Your task to perform on an android device: Search for bose soundlink mini on newegg.com, select the first entry, and add it to the cart. Image 0: 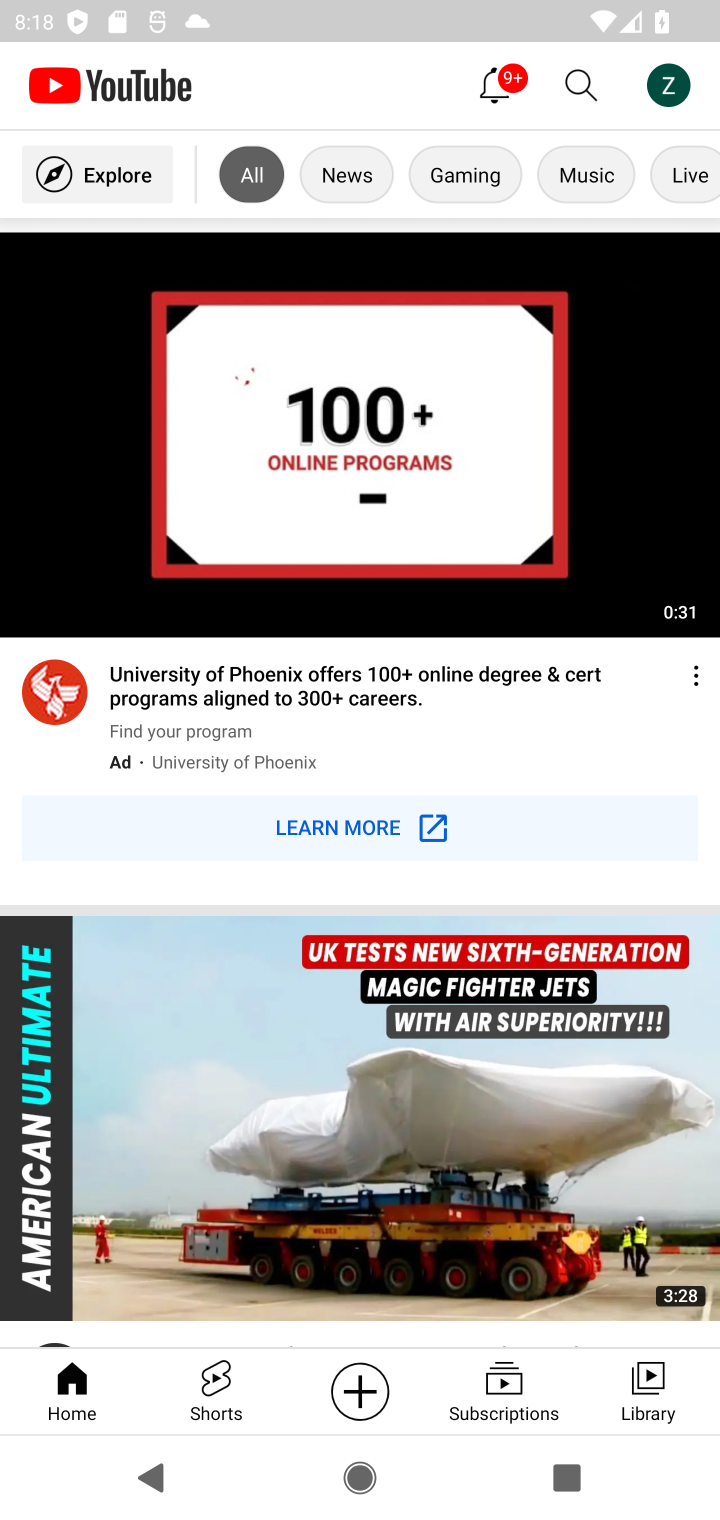
Step 0: press home button
Your task to perform on an android device: Search for bose soundlink mini on newegg.com, select the first entry, and add it to the cart. Image 1: 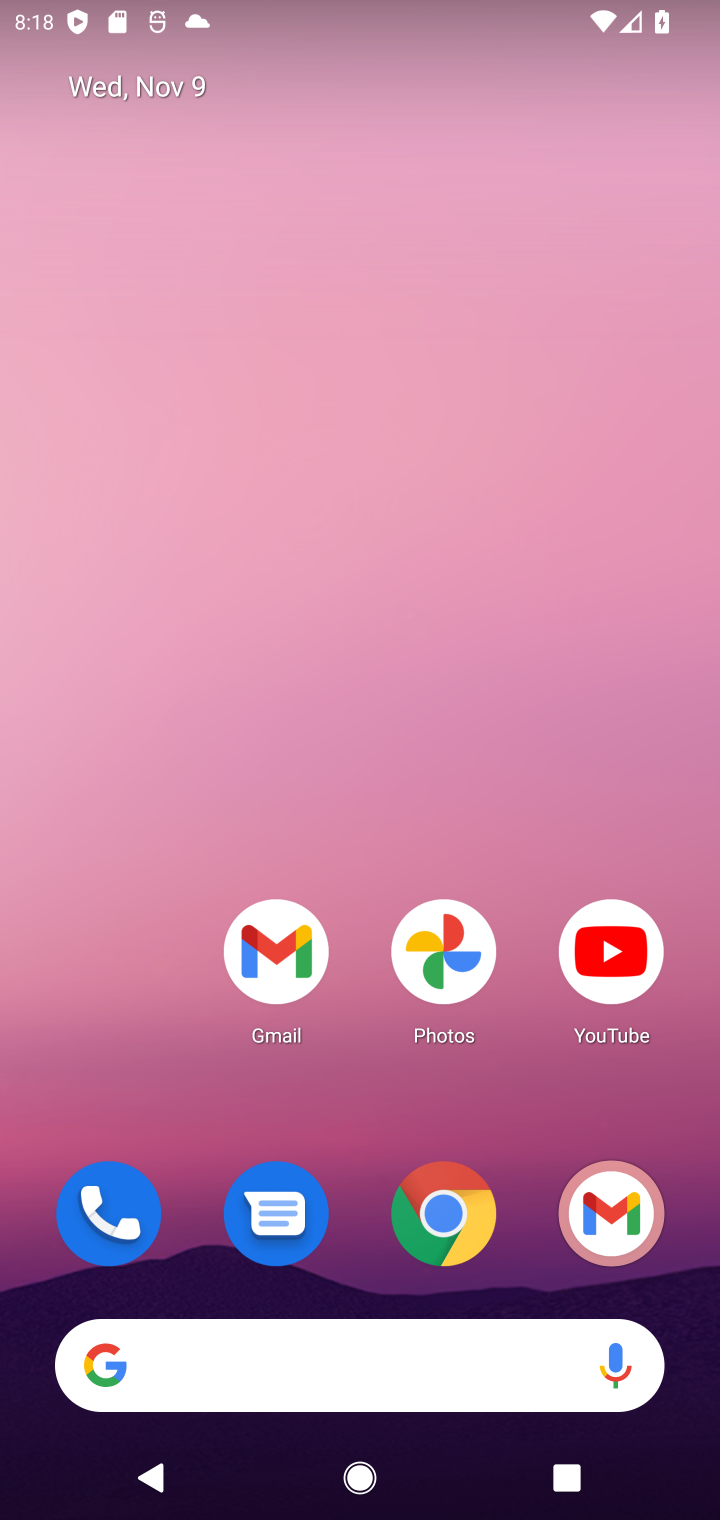
Step 1: click (429, 1213)
Your task to perform on an android device: Search for bose soundlink mini on newegg.com, select the first entry, and add it to the cart. Image 2: 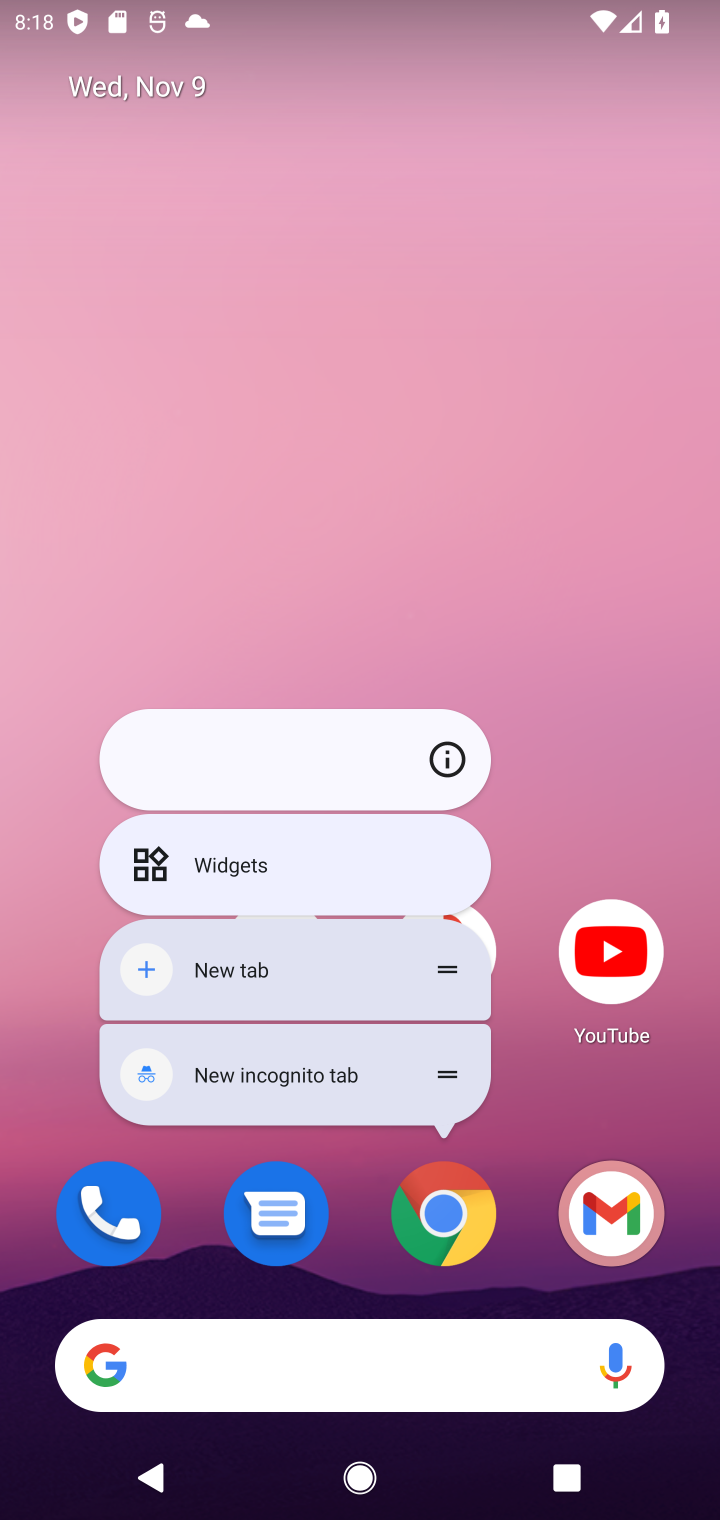
Step 2: click (415, 1215)
Your task to perform on an android device: Search for bose soundlink mini on newegg.com, select the first entry, and add it to the cart. Image 3: 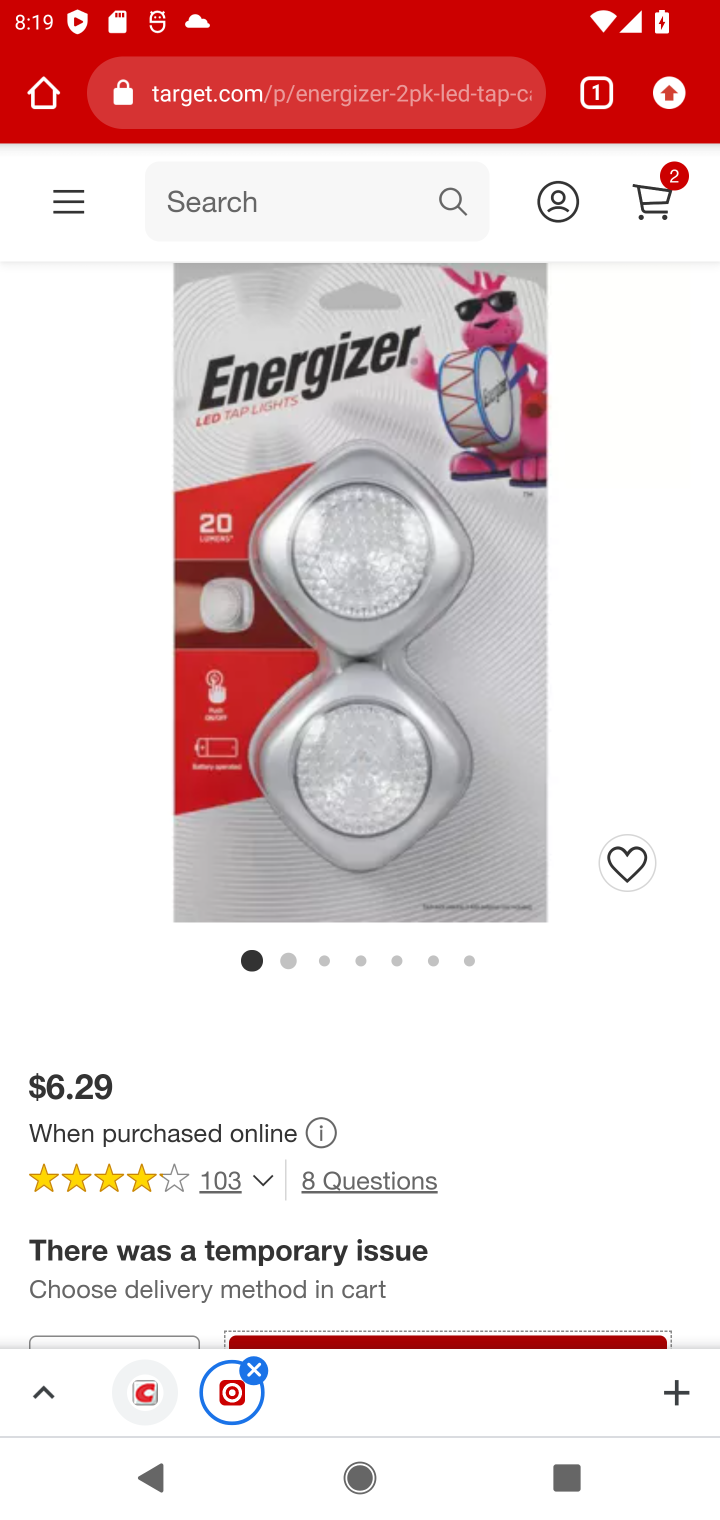
Step 3: click (251, 95)
Your task to perform on an android device: Search for bose soundlink mini on newegg.com, select the first entry, and add it to the cart. Image 4: 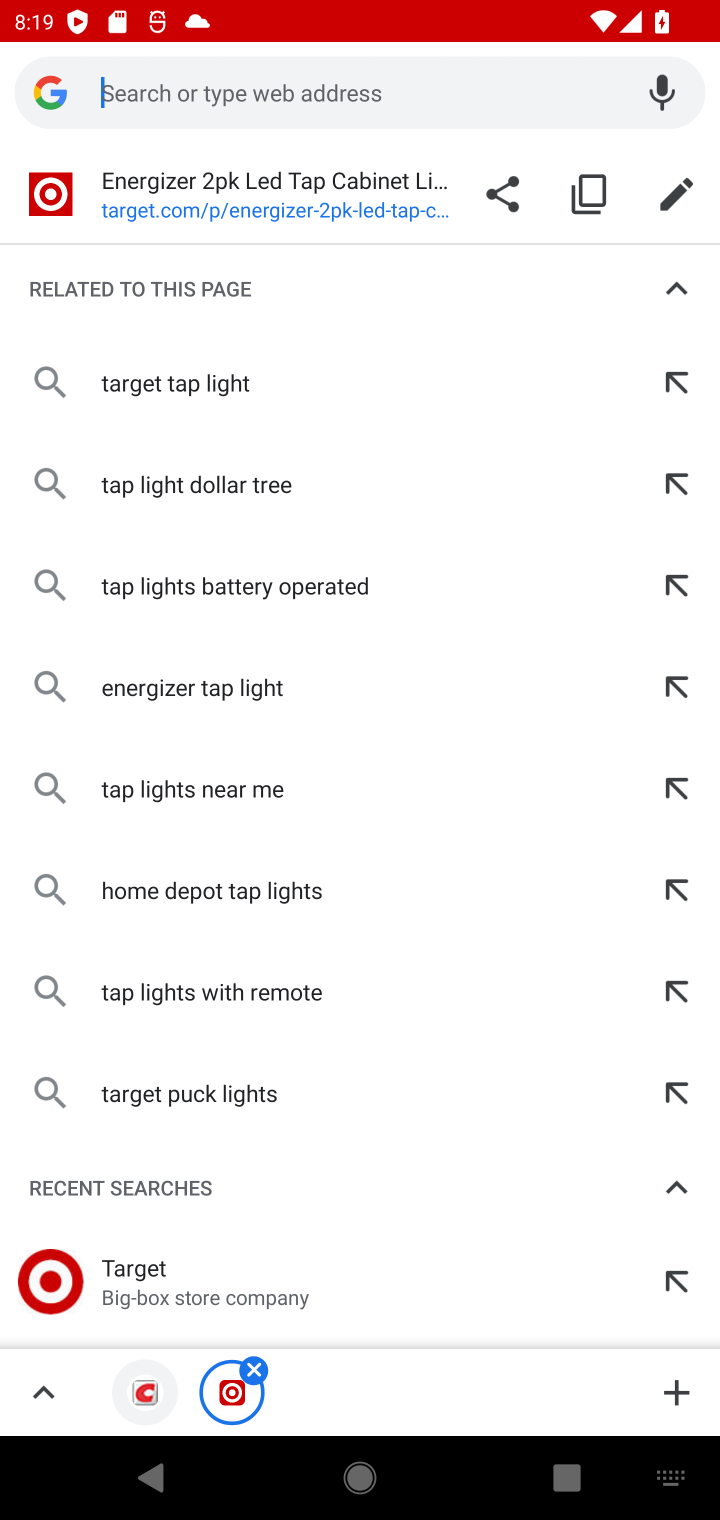
Step 4: type "newegg"
Your task to perform on an android device: Search for bose soundlink mini on newegg.com, select the first entry, and add it to the cart. Image 5: 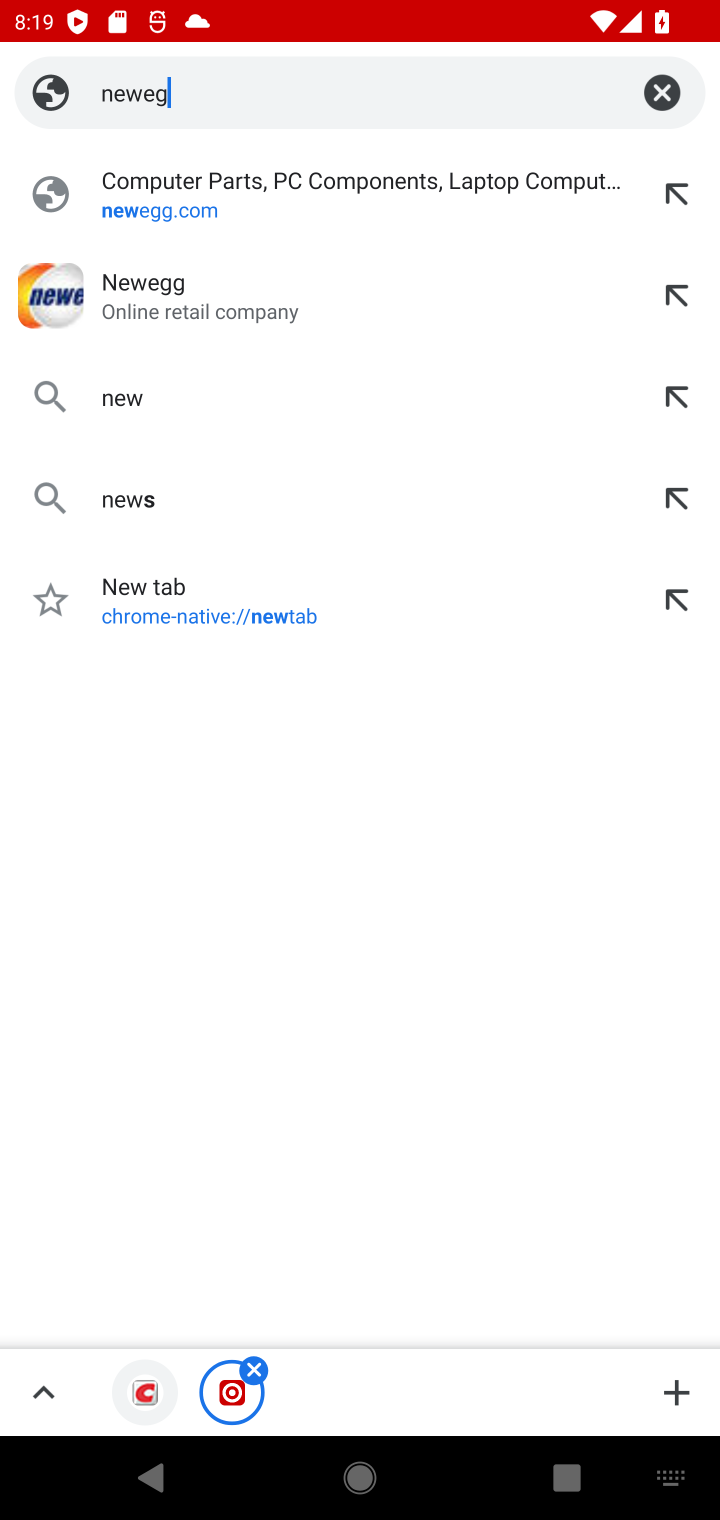
Step 5: type ""
Your task to perform on an android device: Search for bose soundlink mini on newegg.com, select the first entry, and add it to the cart. Image 6: 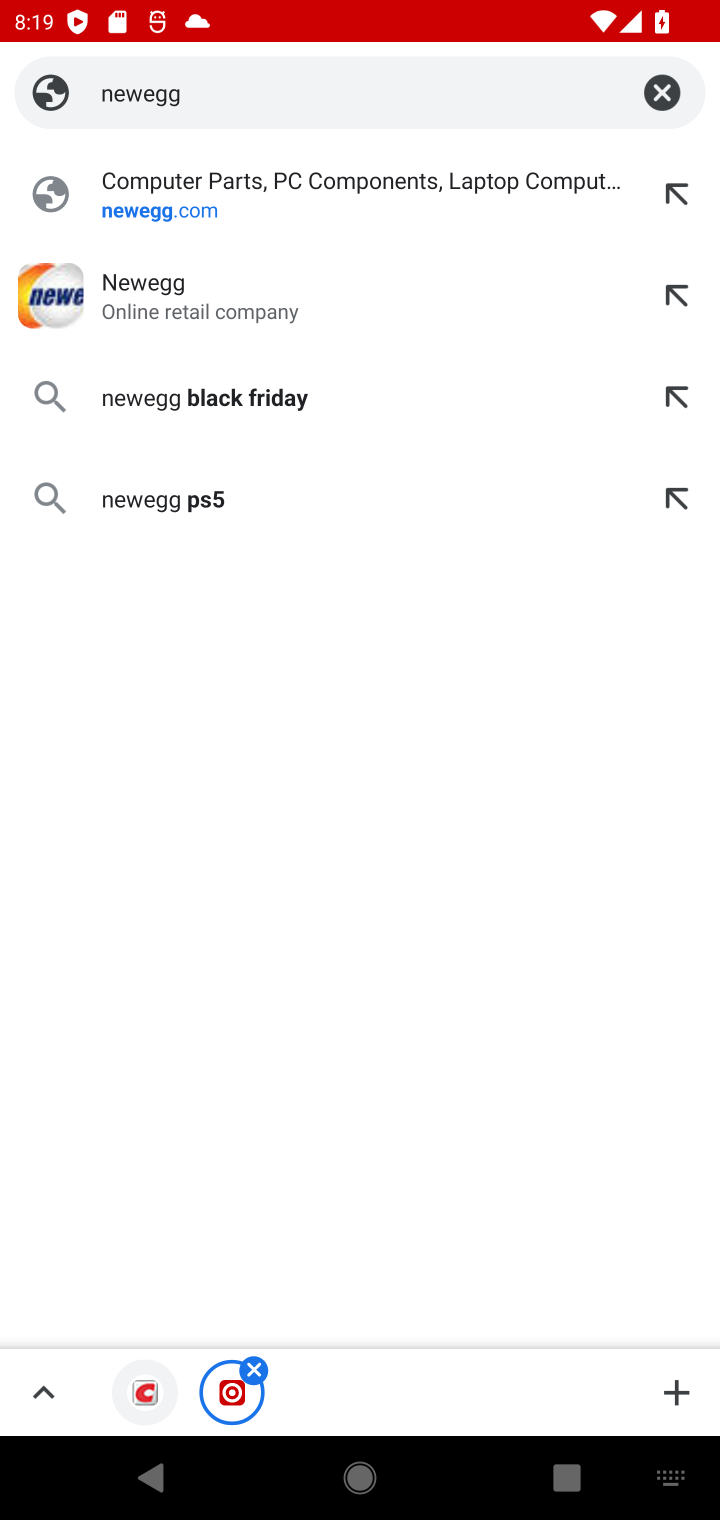
Step 6: click (144, 299)
Your task to perform on an android device: Search for bose soundlink mini on newegg.com, select the first entry, and add it to the cart. Image 7: 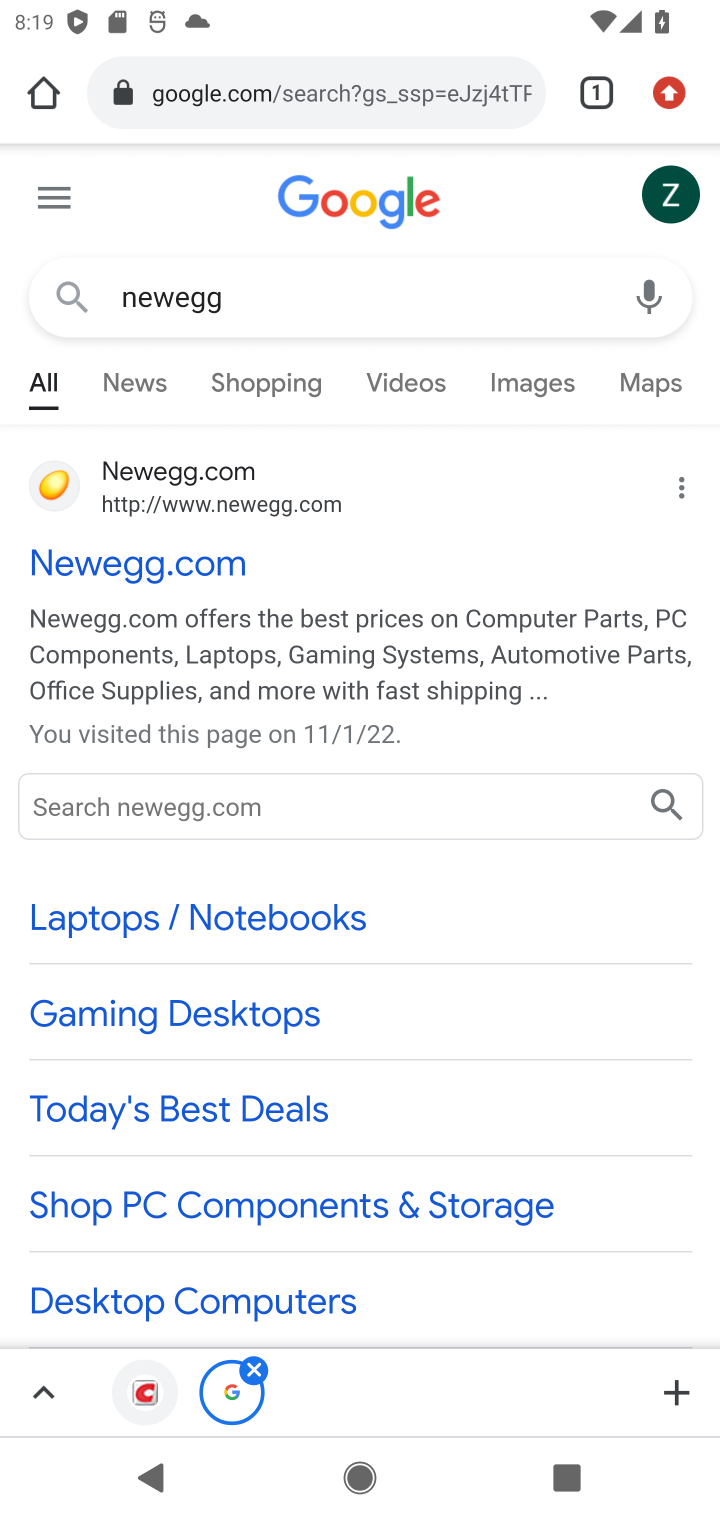
Step 7: click (64, 566)
Your task to perform on an android device: Search for bose soundlink mini on newegg.com, select the first entry, and add it to the cart. Image 8: 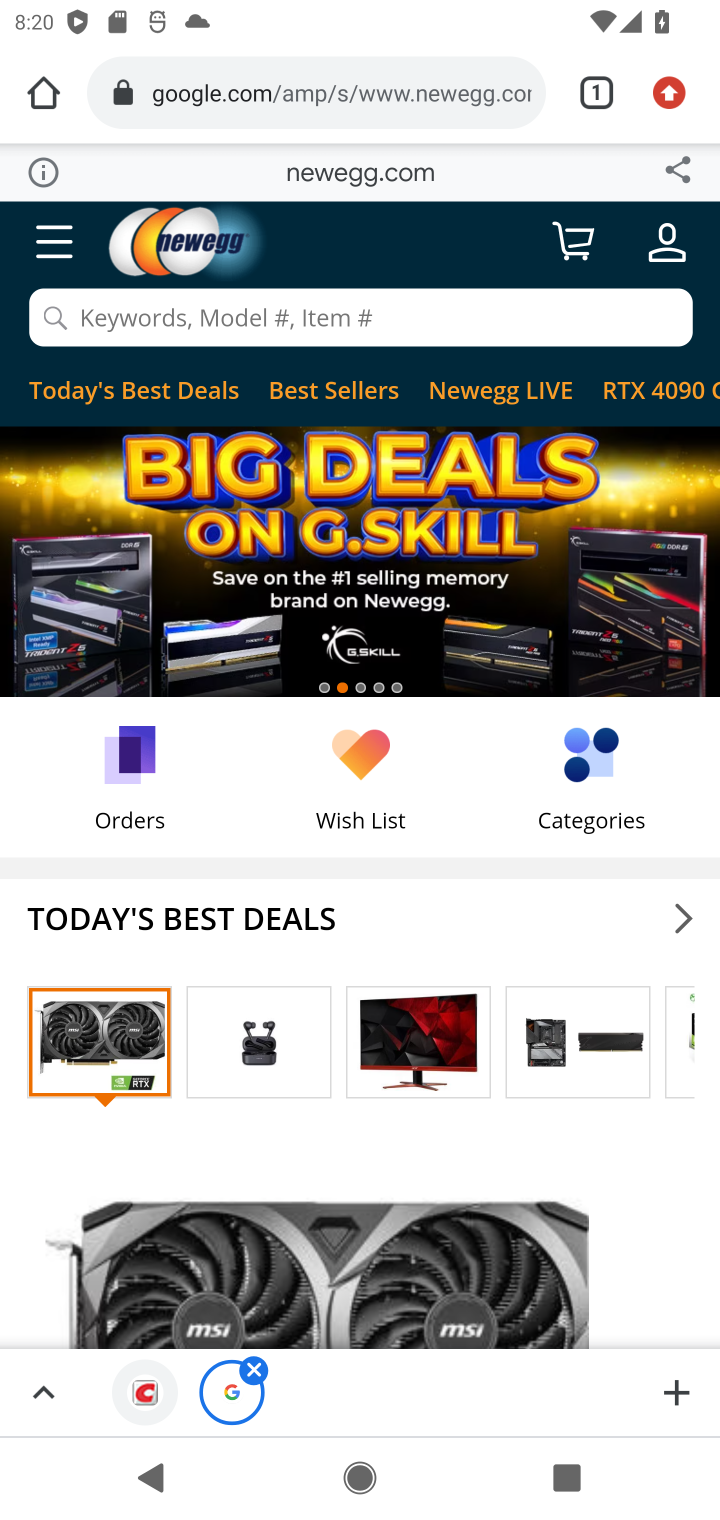
Step 8: click (276, 311)
Your task to perform on an android device: Search for bose soundlink mini on newegg.com, select the first entry, and add it to the cart. Image 9: 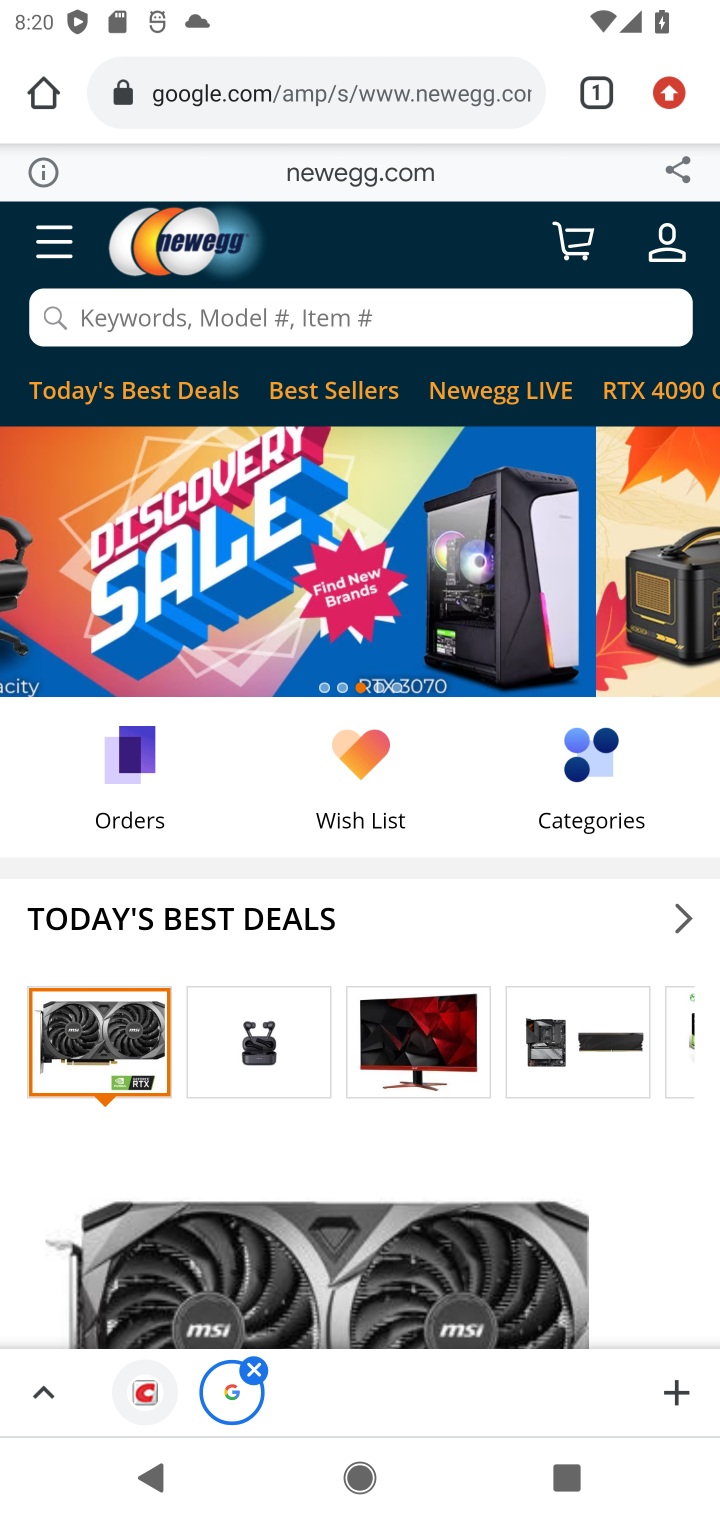
Step 9: click (263, 311)
Your task to perform on an android device: Search for bose soundlink mini on newegg.com, select the first entry, and add it to the cart. Image 10: 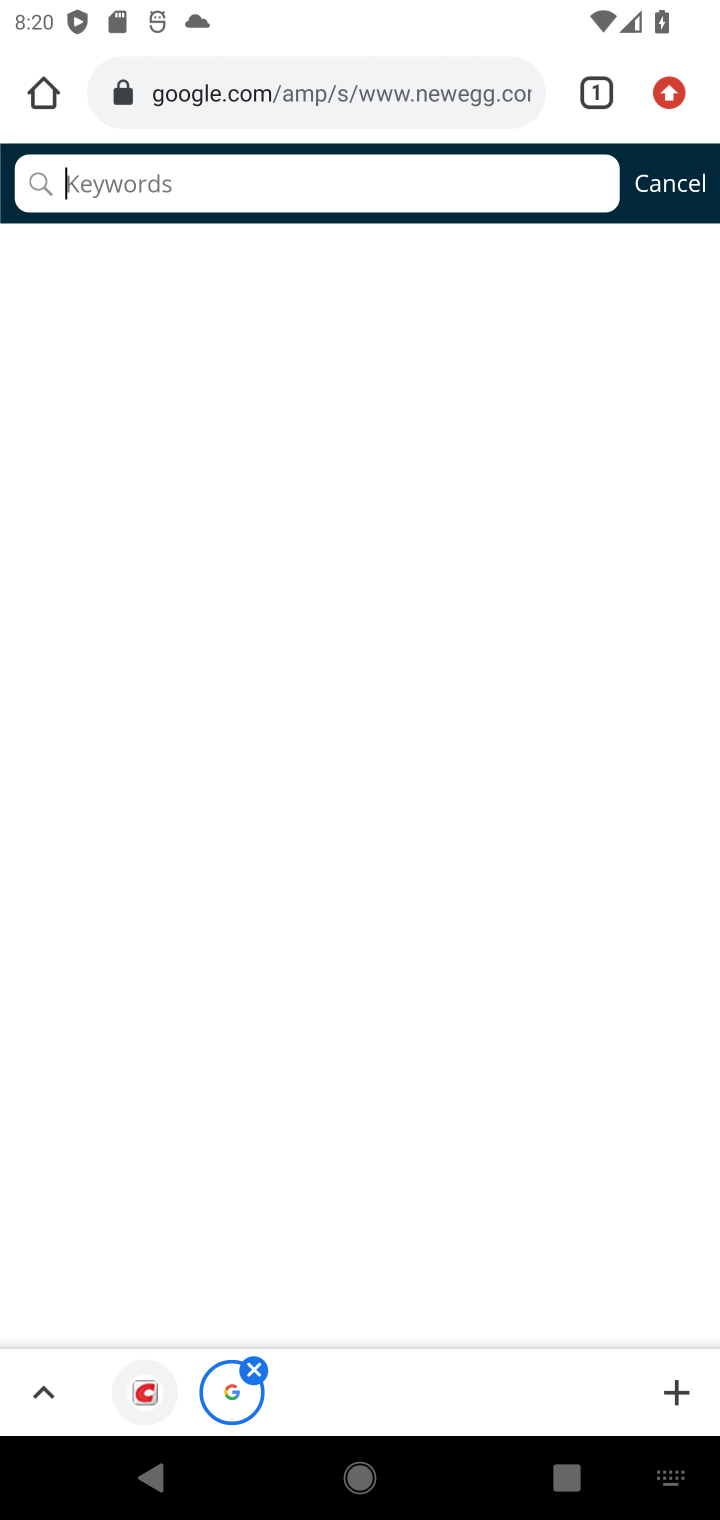
Step 10: type "bose soundlink mini"
Your task to perform on an android device: Search for bose soundlink mini on newegg.com, select the first entry, and add it to the cart. Image 11: 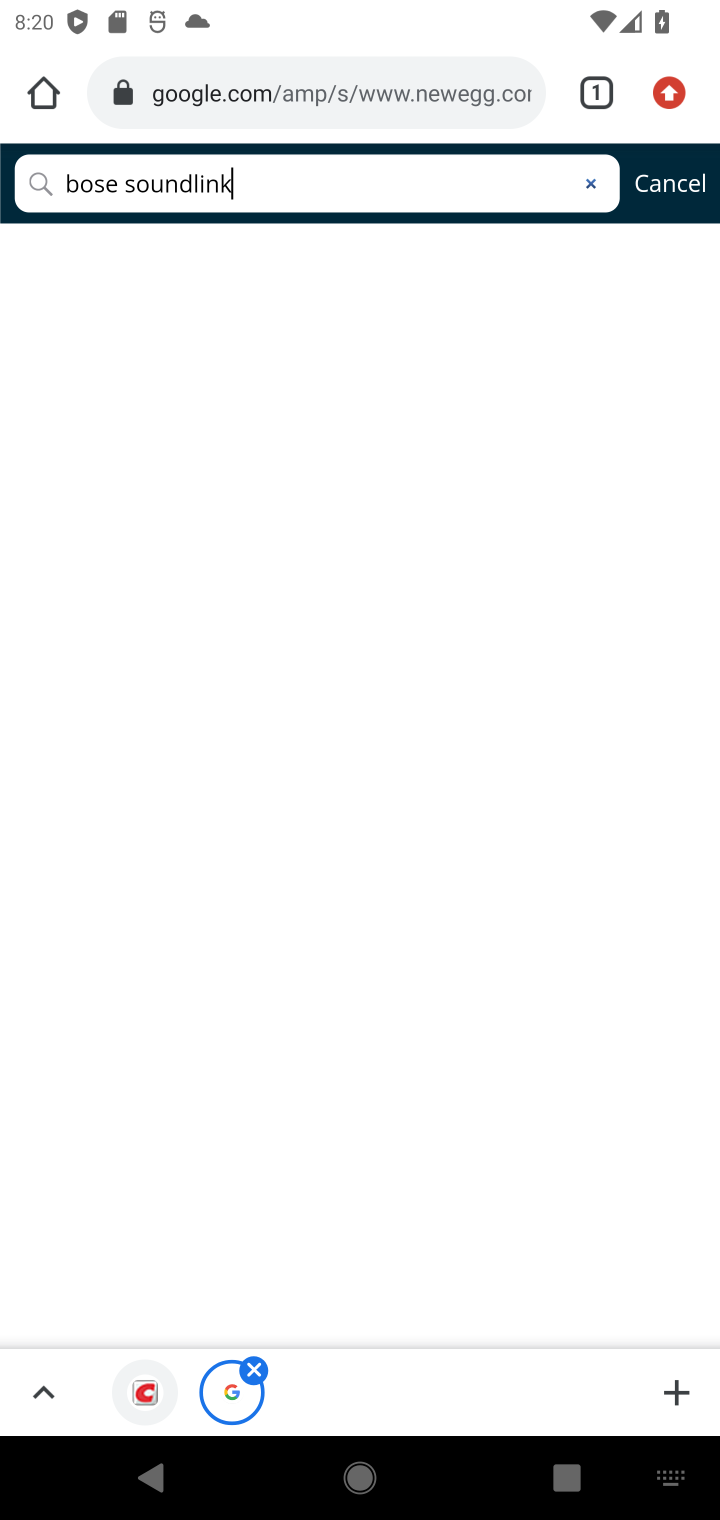
Step 11: type ""
Your task to perform on an android device: Search for bose soundlink mini on newegg.com, select the first entry, and add it to the cart. Image 12: 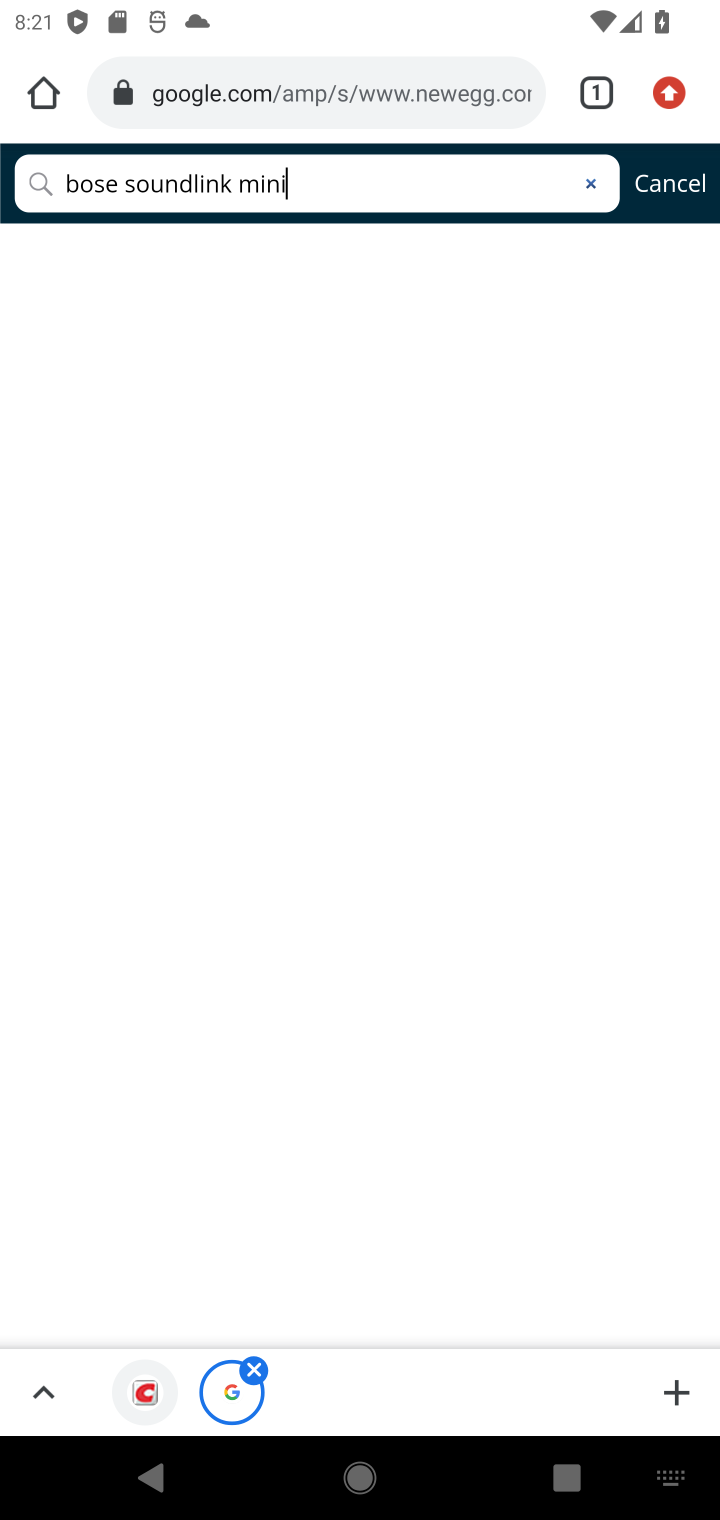
Step 12: click (33, 175)
Your task to perform on an android device: Search for bose soundlink mini on newegg.com, select the first entry, and add it to the cart. Image 13: 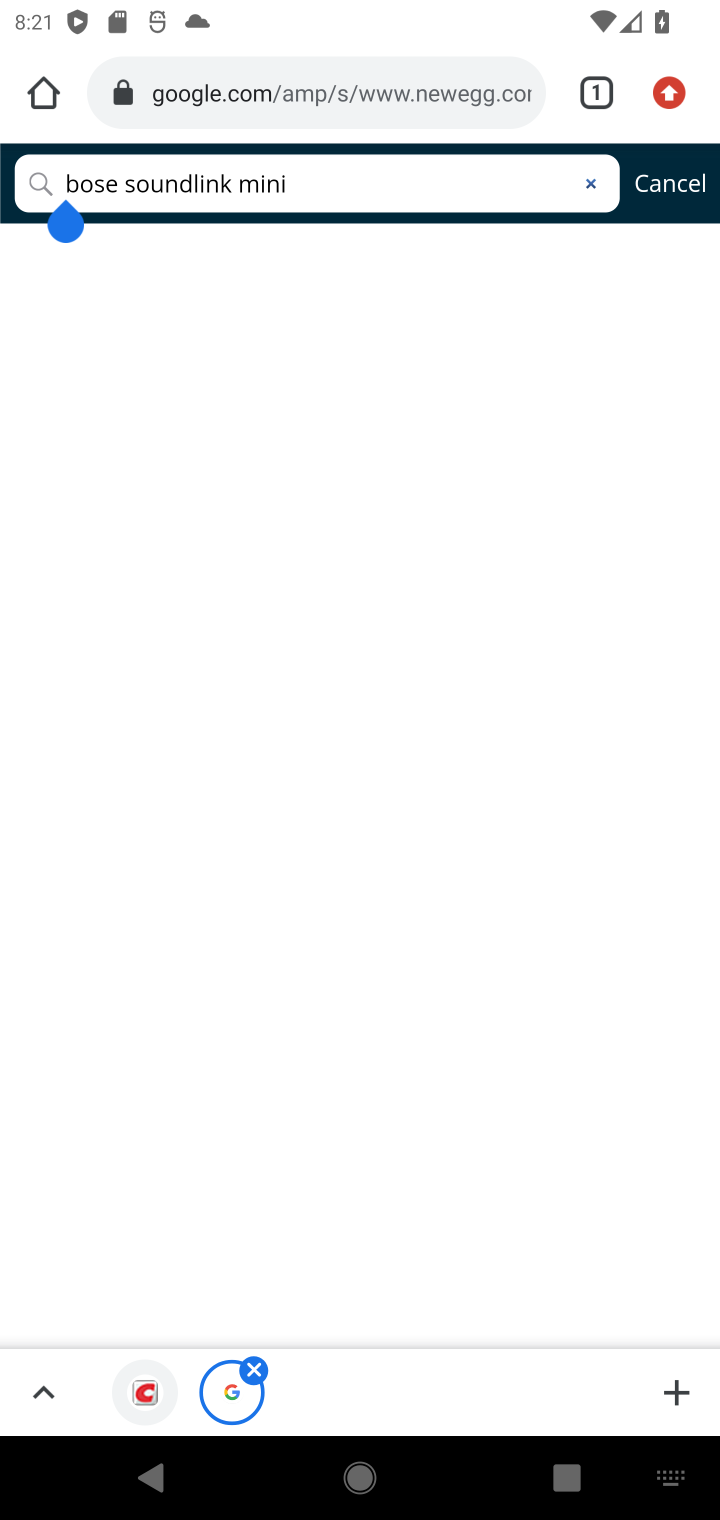
Step 13: click (322, 180)
Your task to perform on an android device: Search for bose soundlink mini on newegg.com, select the first entry, and add it to the cart. Image 14: 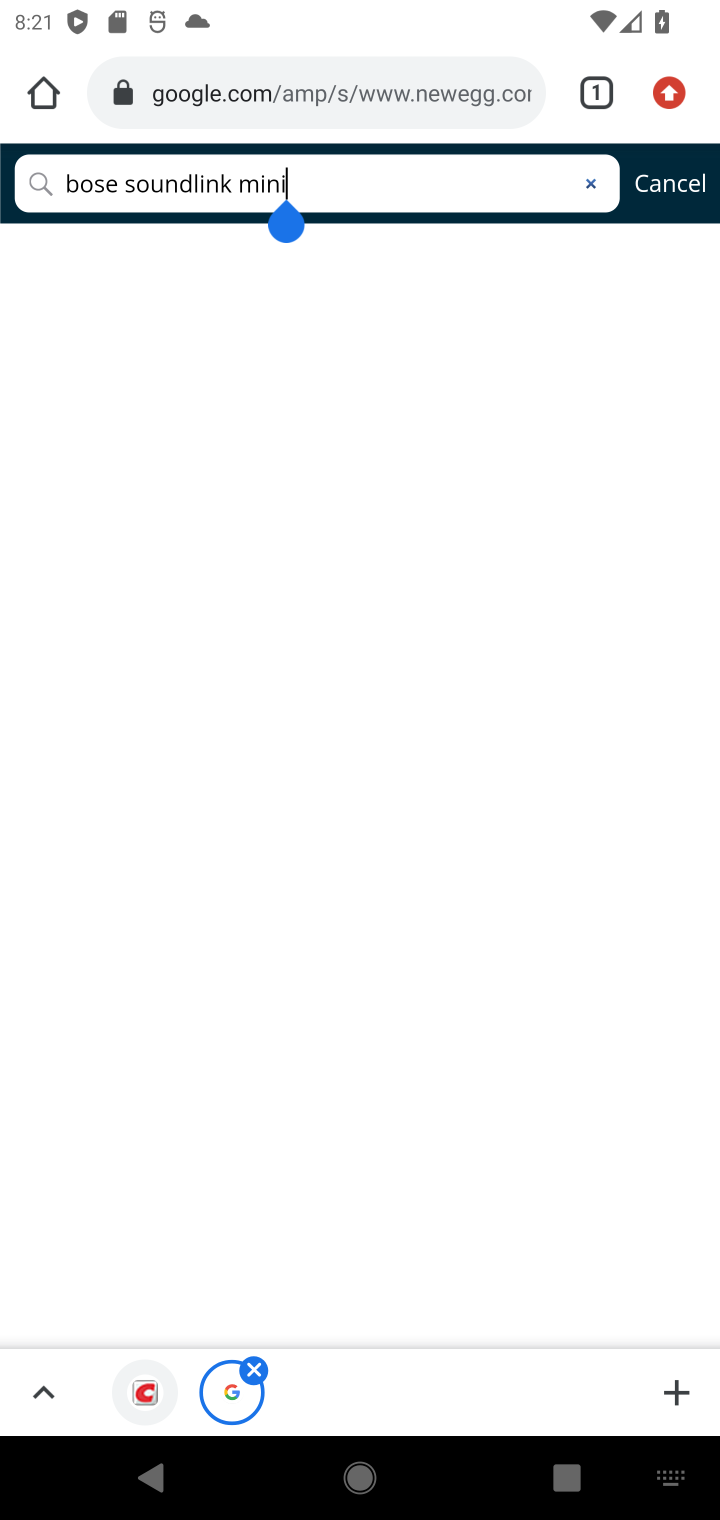
Step 14: click (35, 189)
Your task to perform on an android device: Search for bose soundlink mini on newegg.com, select the first entry, and add it to the cart. Image 15: 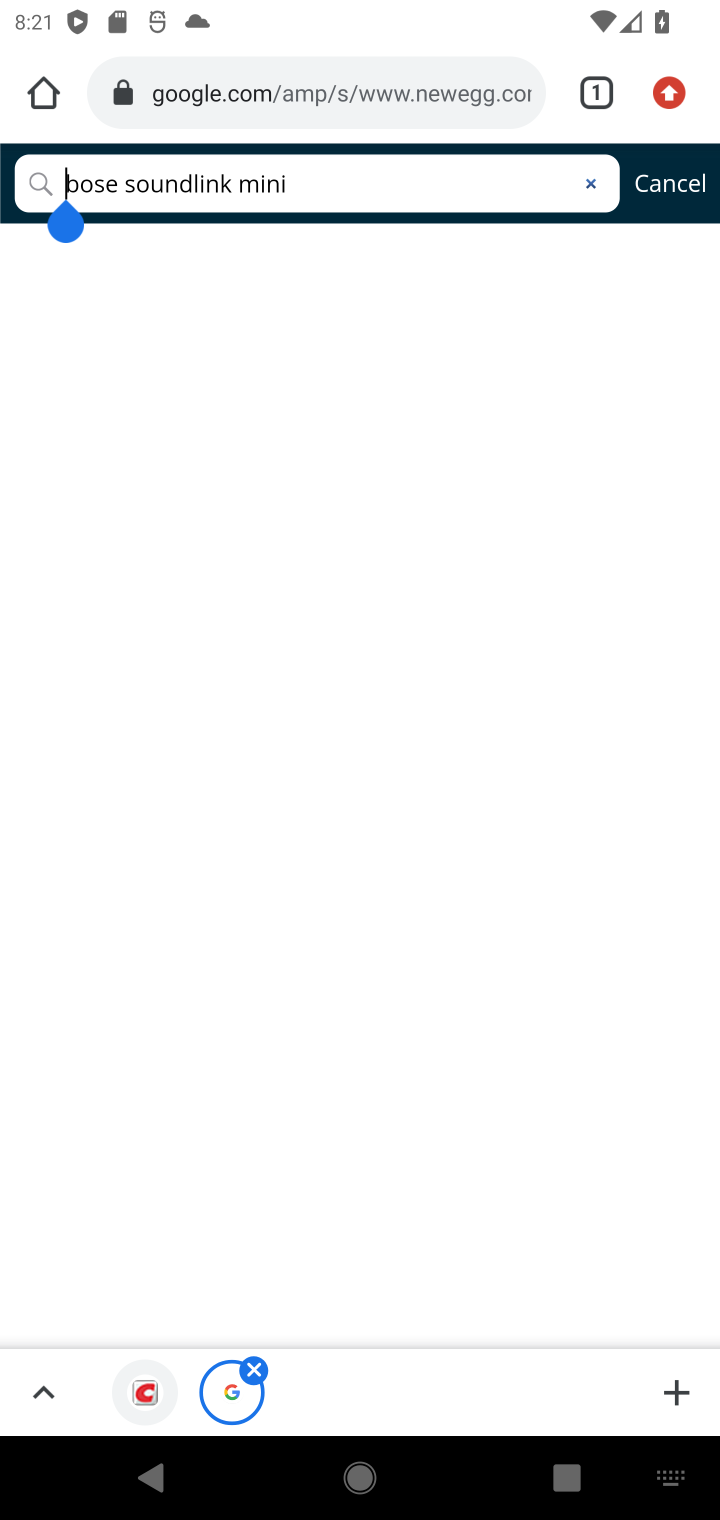
Step 15: click (597, 189)
Your task to perform on an android device: Search for bose soundlink mini on newegg.com, select the first entry, and add it to the cart. Image 16: 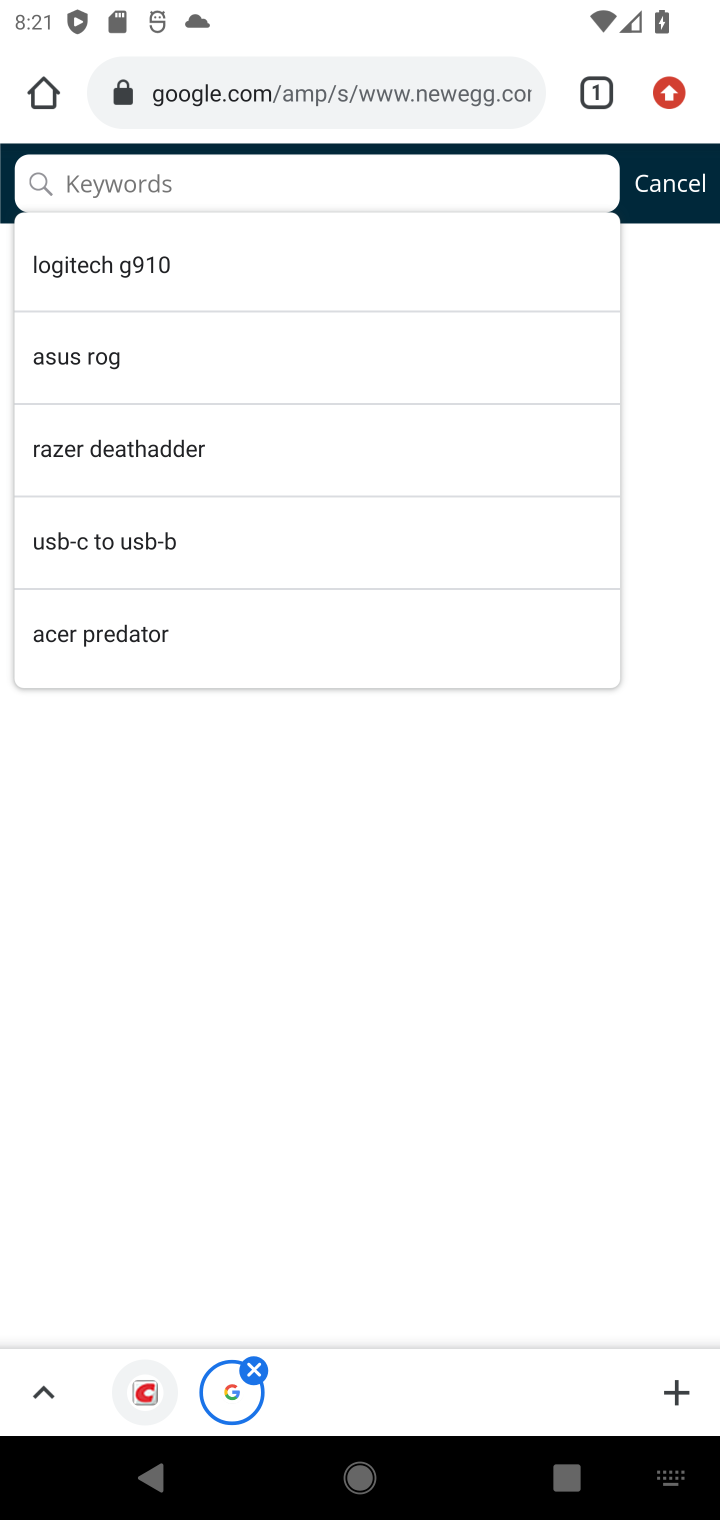
Step 16: task complete